Your task to perform on an android device: clear history in the chrome app Image 0: 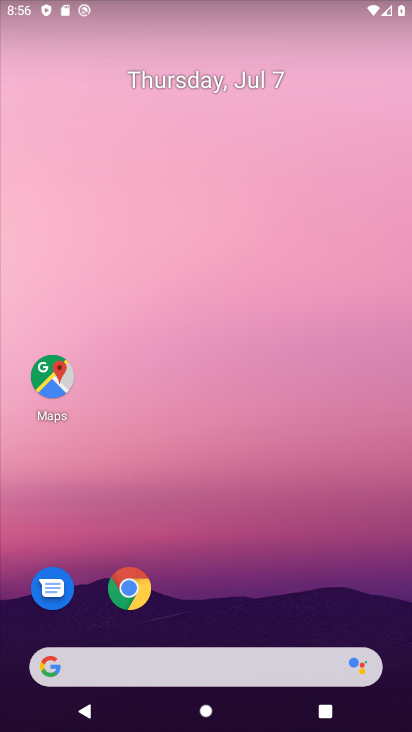
Step 0: click (134, 580)
Your task to perform on an android device: clear history in the chrome app Image 1: 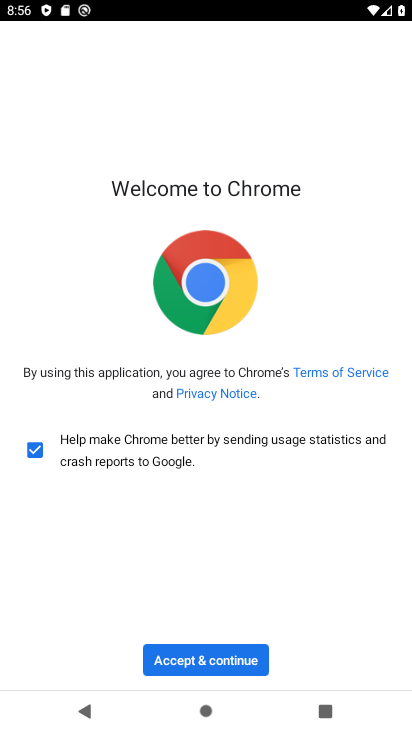
Step 1: click (162, 655)
Your task to perform on an android device: clear history in the chrome app Image 2: 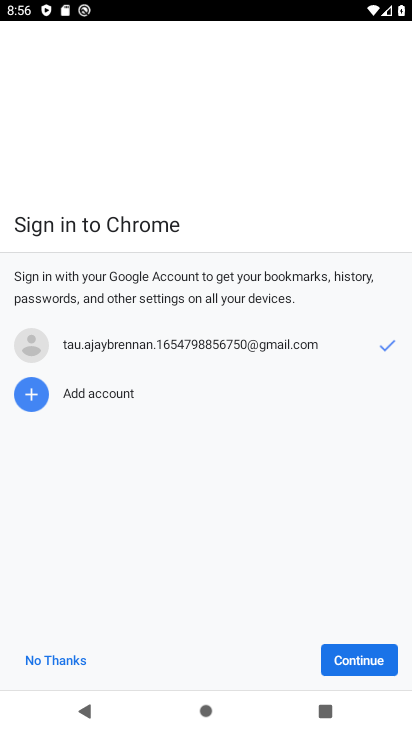
Step 2: click (378, 662)
Your task to perform on an android device: clear history in the chrome app Image 3: 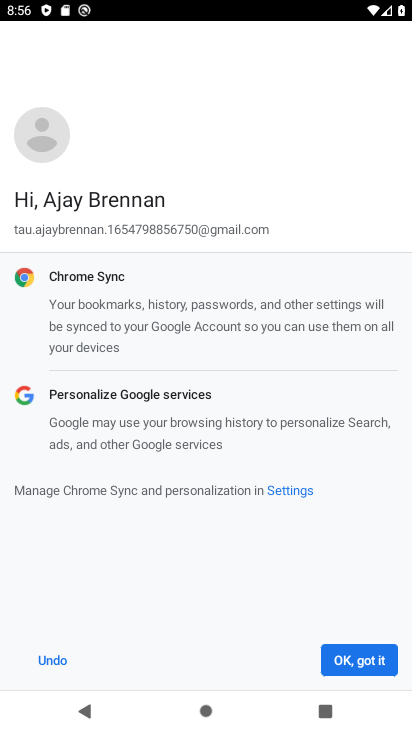
Step 3: click (378, 662)
Your task to perform on an android device: clear history in the chrome app Image 4: 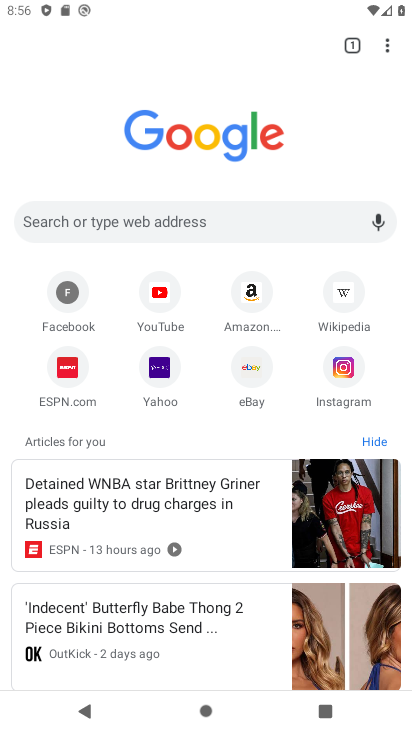
Step 4: click (388, 47)
Your task to perform on an android device: clear history in the chrome app Image 5: 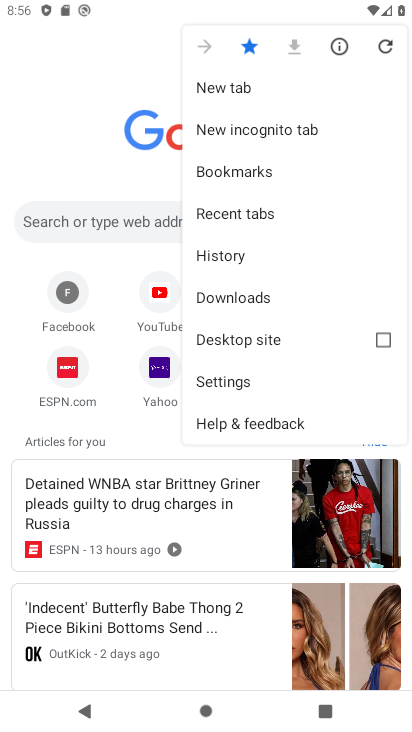
Step 5: click (216, 246)
Your task to perform on an android device: clear history in the chrome app Image 6: 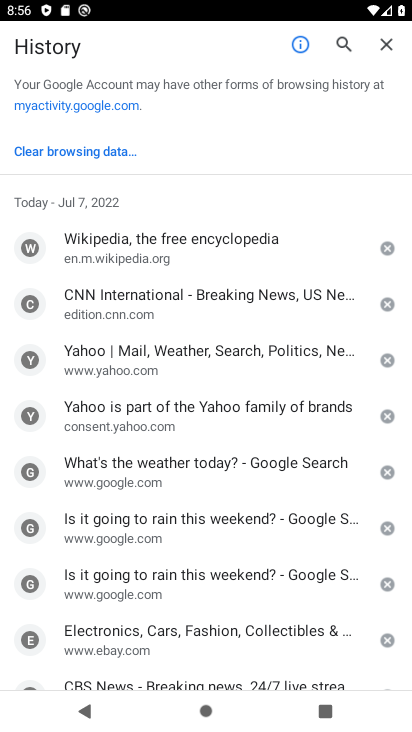
Step 6: click (103, 152)
Your task to perform on an android device: clear history in the chrome app Image 7: 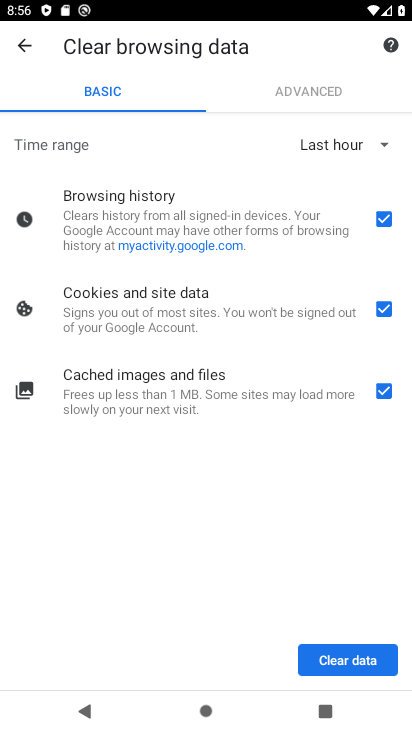
Step 7: click (356, 662)
Your task to perform on an android device: clear history in the chrome app Image 8: 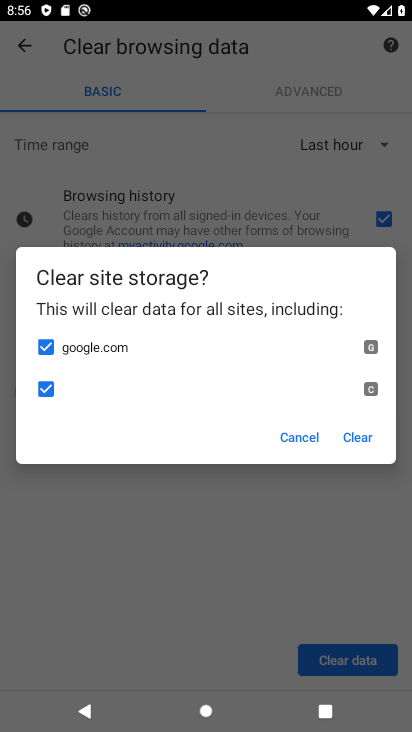
Step 8: click (340, 437)
Your task to perform on an android device: clear history in the chrome app Image 9: 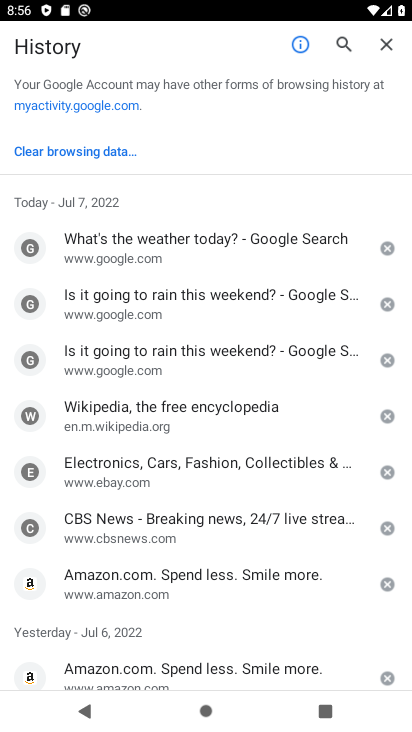
Step 9: task complete